Your task to perform on an android device: turn on priority inbox in the gmail app Image 0: 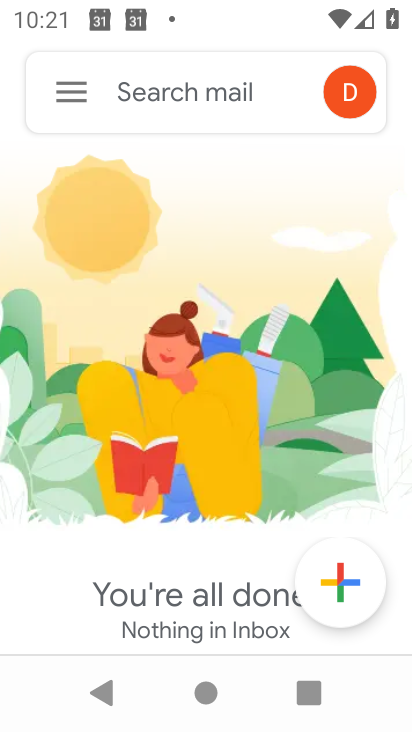
Step 0: press home button
Your task to perform on an android device: turn on priority inbox in the gmail app Image 1: 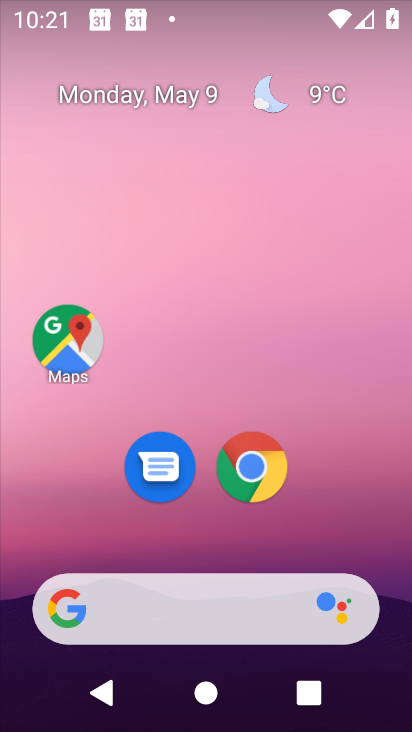
Step 1: drag from (372, 587) to (370, 0)
Your task to perform on an android device: turn on priority inbox in the gmail app Image 2: 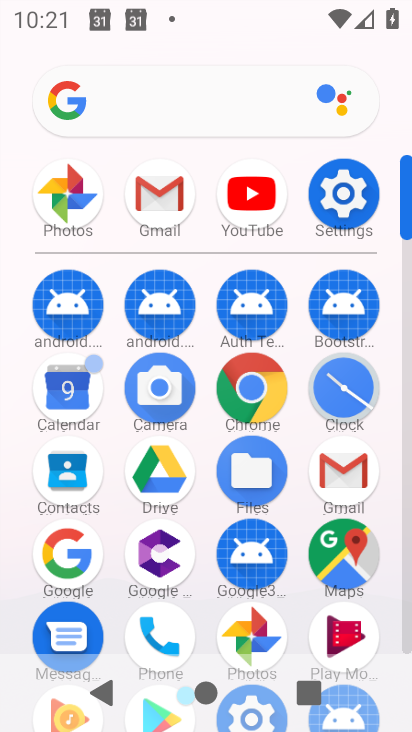
Step 2: click (153, 205)
Your task to perform on an android device: turn on priority inbox in the gmail app Image 3: 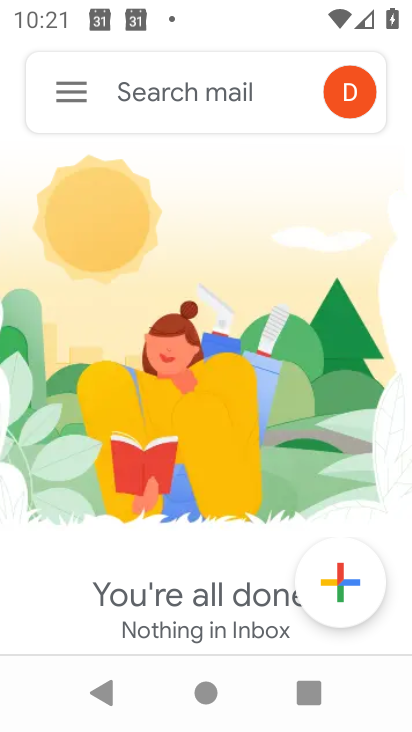
Step 3: click (64, 102)
Your task to perform on an android device: turn on priority inbox in the gmail app Image 4: 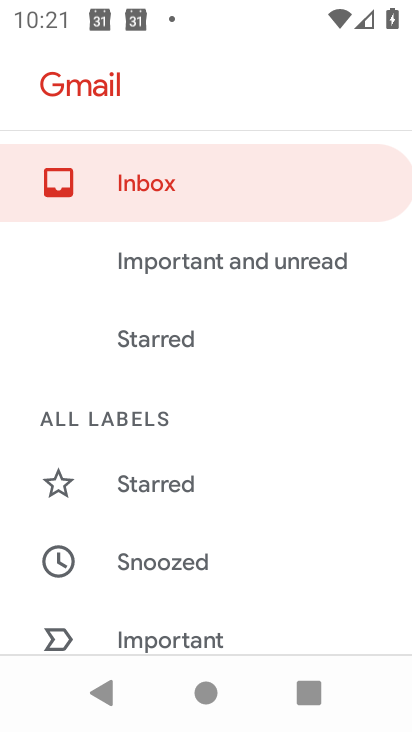
Step 4: drag from (253, 545) to (214, 13)
Your task to perform on an android device: turn on priority inbox in the gmail app Image 5: 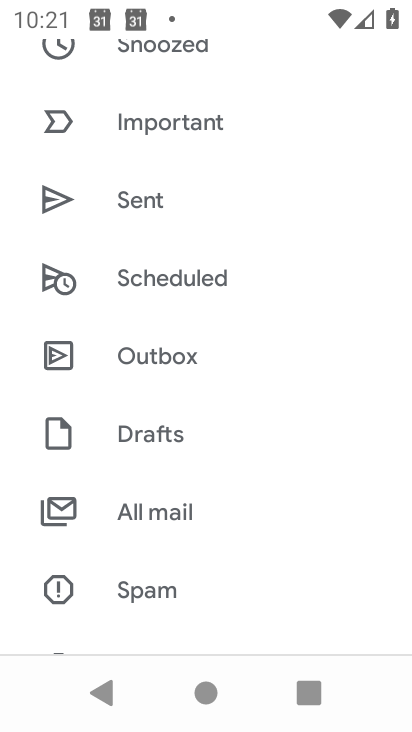
Step 5: drag from (174, 520) to (180, 12)
Your task to perform on an android device: turn on priority inbox in the gmail app Image 6: 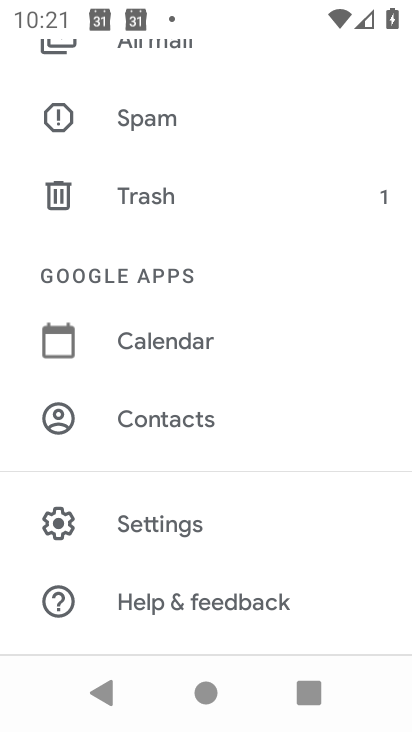
Step 6: click (193, 523)
Your task to perform on an android device: turn on priority inbox in the gmail app Image 7: 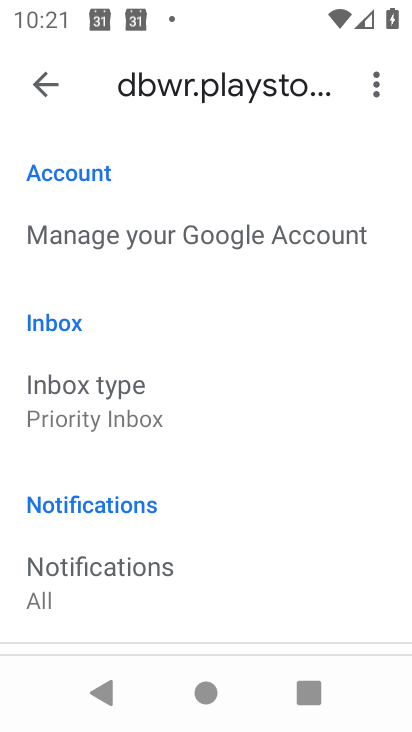
Step 7: click (86, 424)
Your task to perform on an android device: turn on priority inbox in the gmail app Image 8: 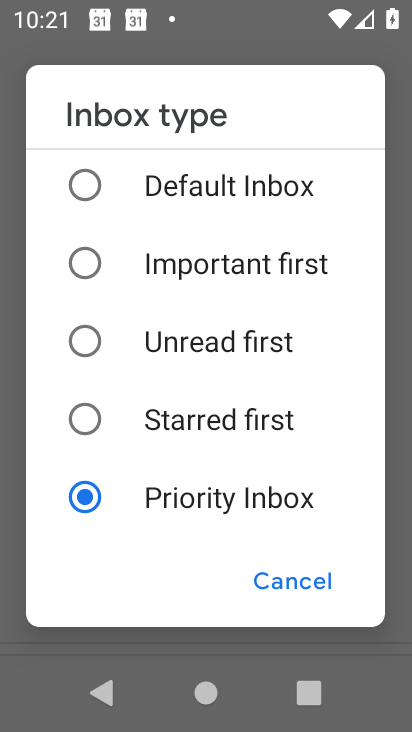
Step 8: task complete